Your task to perform on an android device: turn on improve location accuracy Image 0: 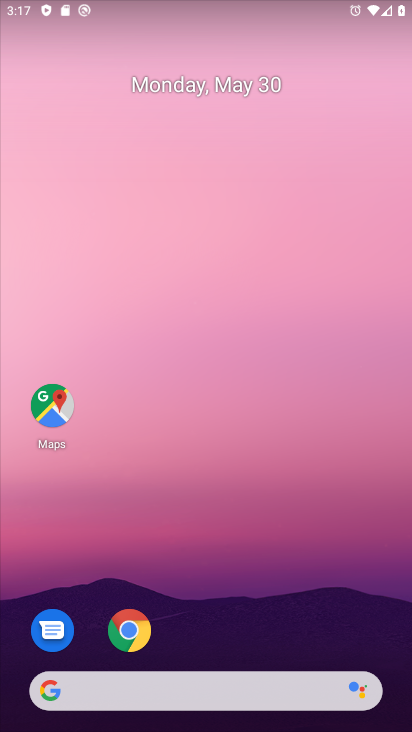
Step 0: press home button
Your task to perform on an android device: turn on improve location accuracy Image 1: 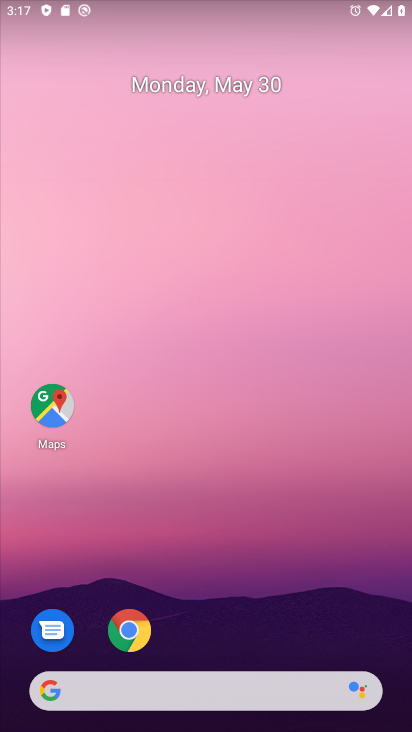
Step 1: drag from (310, 635) to (311, 18)
Your task to perform on an android device: turn on improve location accuracy Image 2: 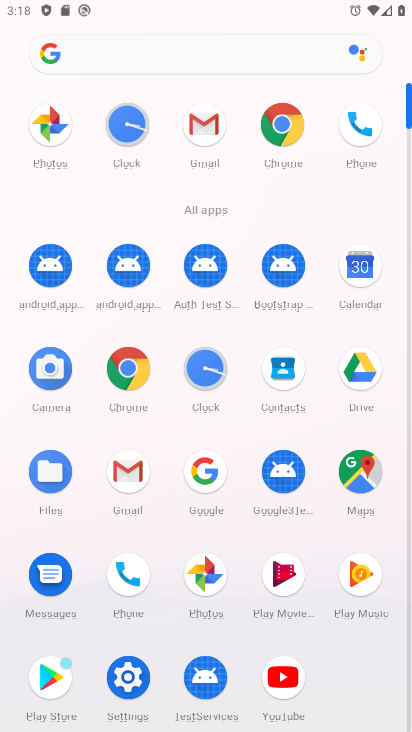
Step 2: drag from (410, 126) to (404, 212)
Your task to perform on an android device: turn on improve location accuracy Image 3: 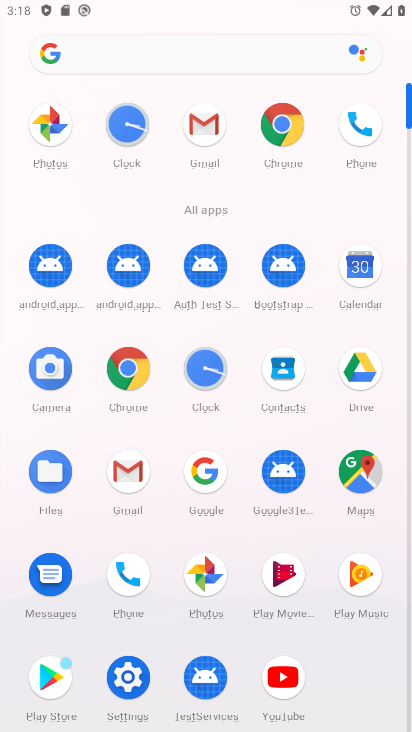
Step 3: click (116, 681)
Your task to perform on an android device: turn on improve location accuracy Image 4: 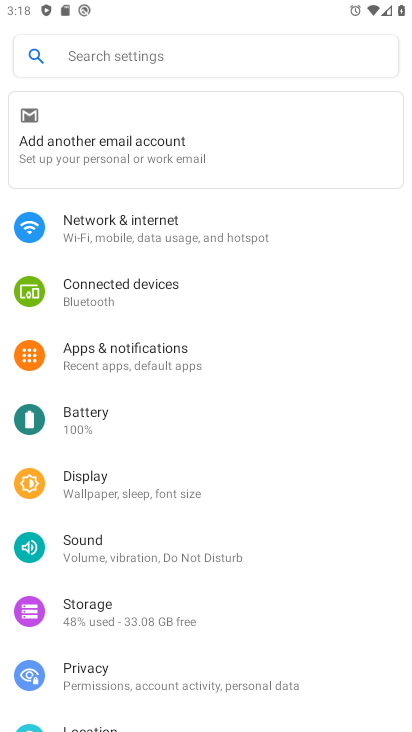
Step 4: drag from (78, 607) to (85, 131)
Your task to perform on an android device: turn on improve location accuracy Image 5: 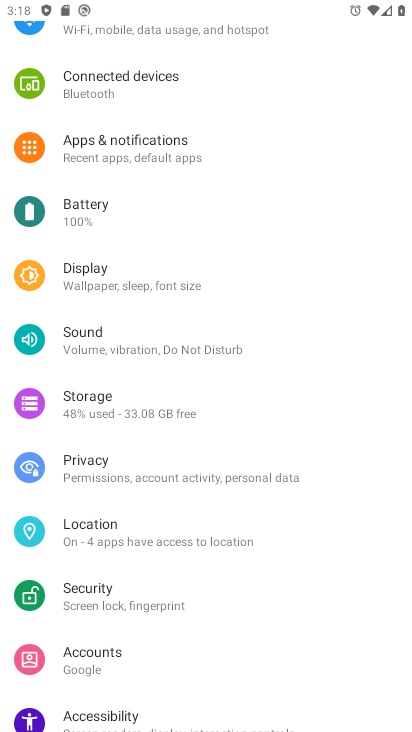
Step 5: click (113, 539)
Your task to perform on an android device: turn on improve location accuracy Image 6: 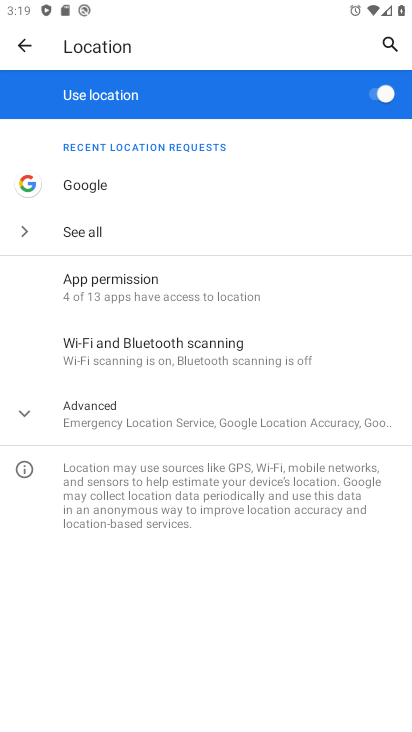
Step 6: click (99, 421)
Your task to perform on an android device: turn on improve location accuracy Image 7: 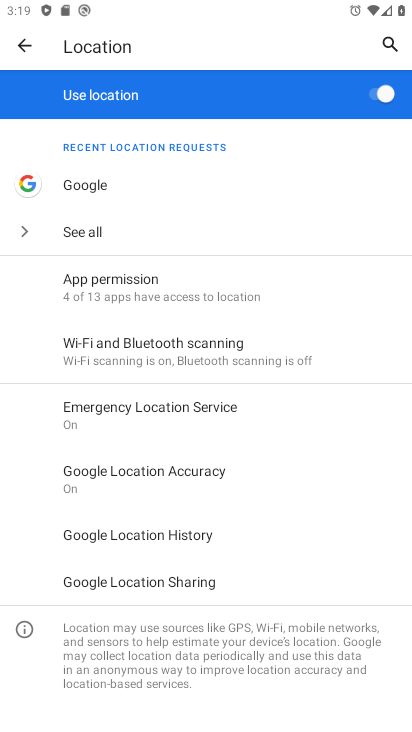
Step 7: click (81, 471)
Your task to perform on an android device: turn on improve location accuracy Image 8: 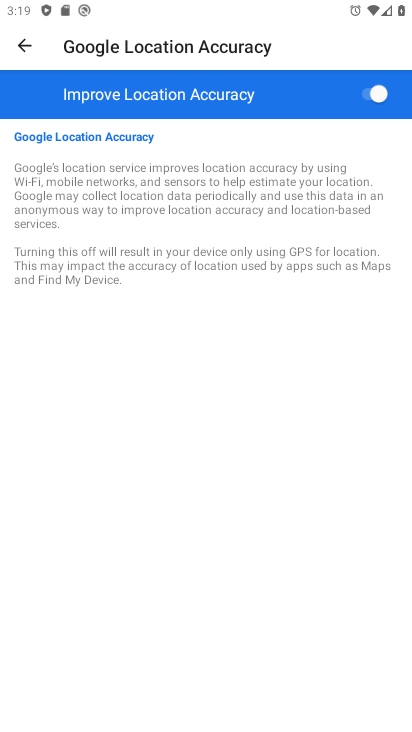
Step 8: task complete